Your task to perform on an android device: Search for usb-c to usb-a on bestbuy, select the first entry, add it to the cart, then select checkout. Image 0: 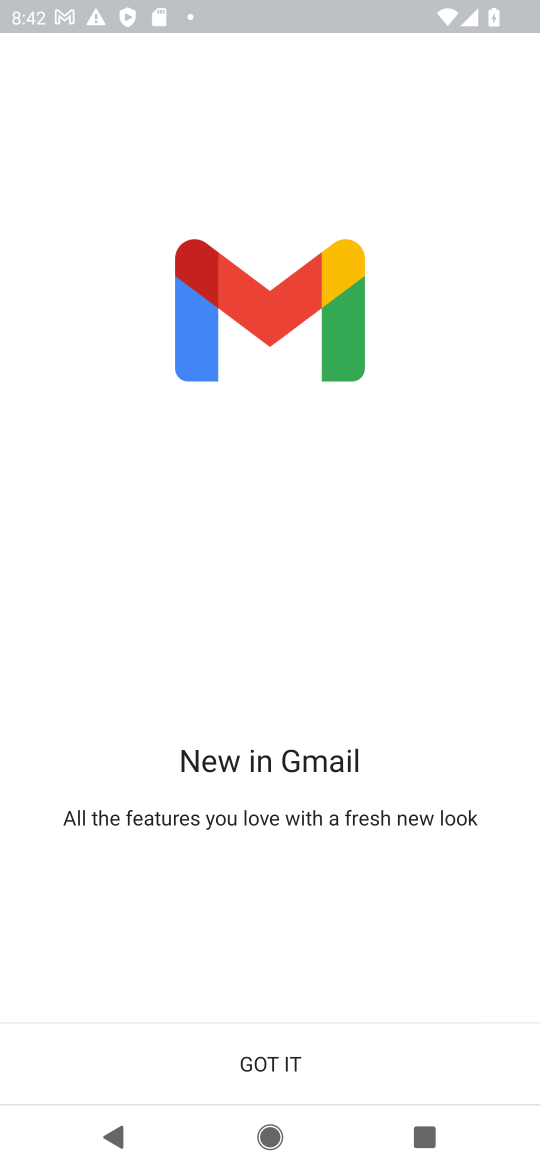
Step 0: press home button
Your task to perform on an android device: Search for usb-c to usb-a on bestbuy, select the first entry, add it to the cart, then select checkout. Image 1: 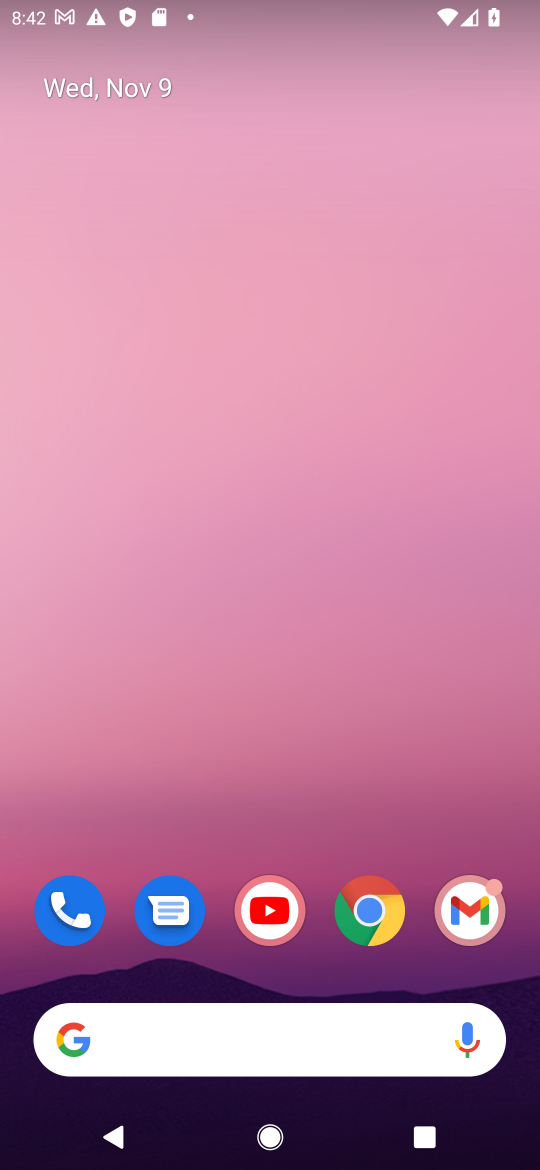
Step 1: click (374, 905)
Your task to perform on an android device: Search for usb-c to usb-a on bestbuy, select the first entry, add it to the cart, then select checkout. Image 2: 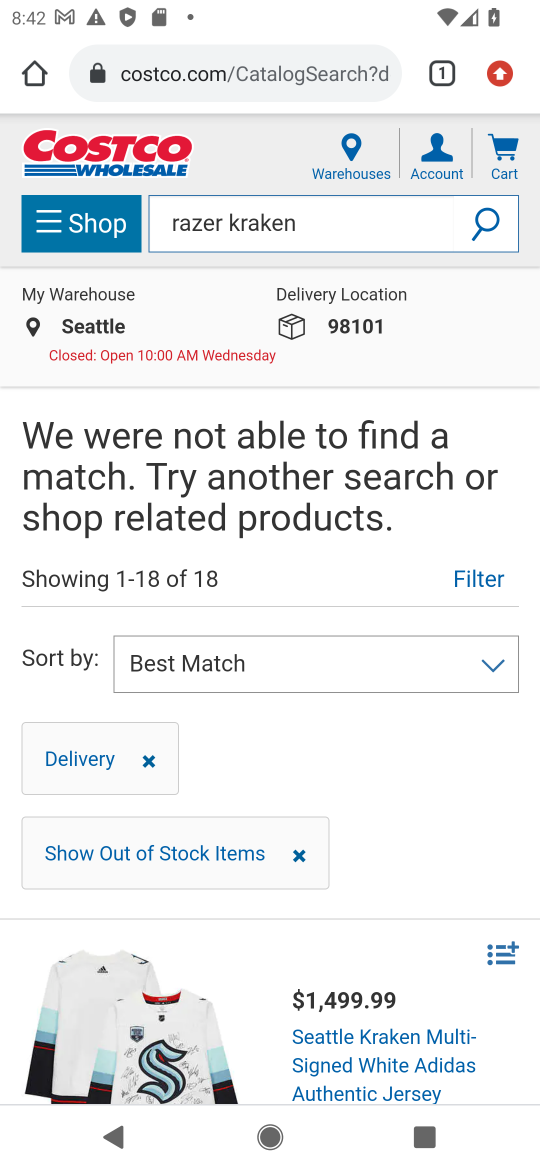
Step 2: click (201, 80)
Your task to perform on an android device: Search for usb-c to usb-a on bestbuy, select the first entry, add it to the cart, then select checkout. Image 3: 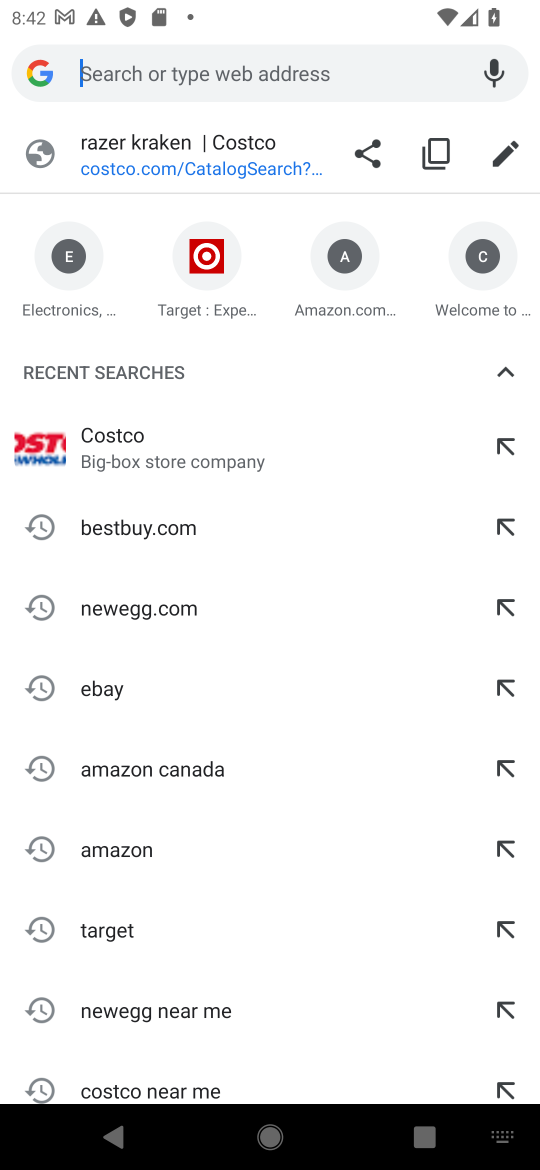
Step 3: click (121, 528)
Your task to perform on an android device: Search for usb-c to usb-a on bestbuy, select the first entry, add it to the cart, then select checkout. Image 4: 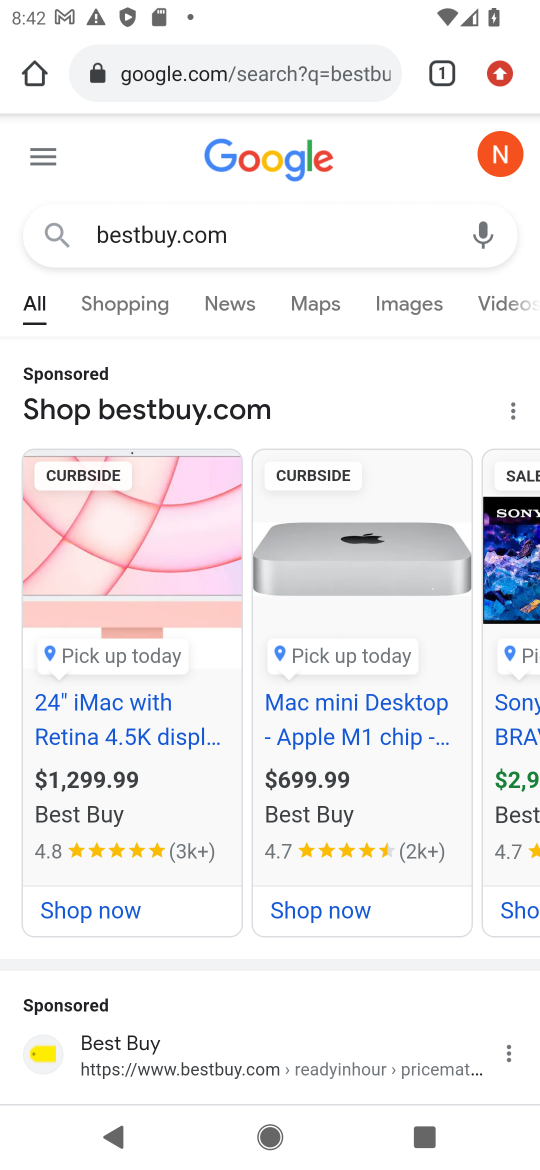
Step 4: drag from (235, 677) to (206, 278)
Your task to perform on an android device: Search for usb-c to usb-a on bestbuy, select the first entry, add it to the cart, then select checkout. Image 5: 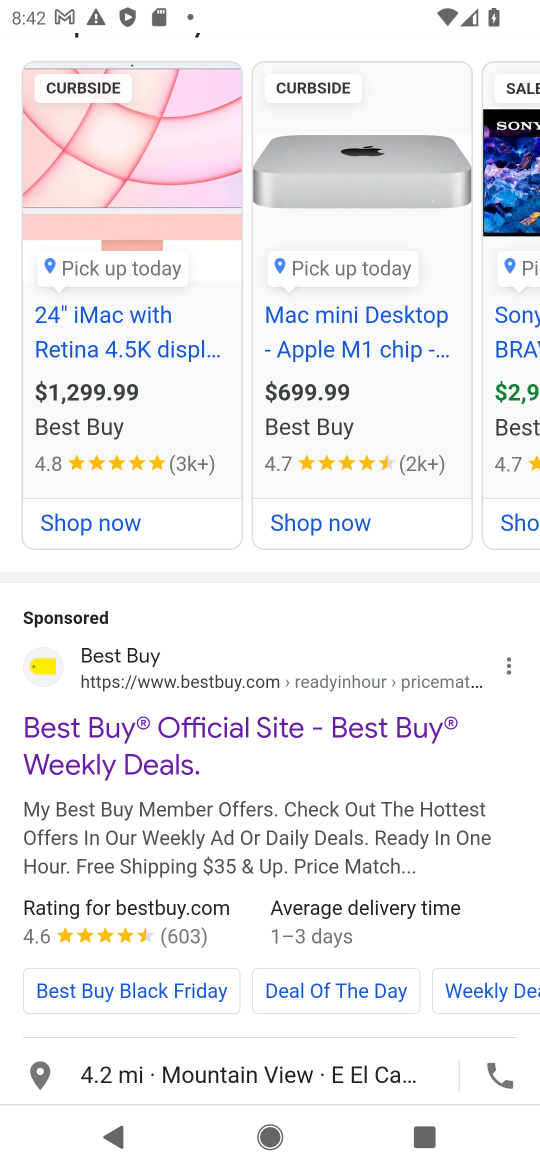
Step 5: drag from (141, 741) to (127, 299)
Your task to perform on an android device: Search for usb-c to usb-a on bestbuy, select the first entry, add it to the cart, then select checkout. Image 6: 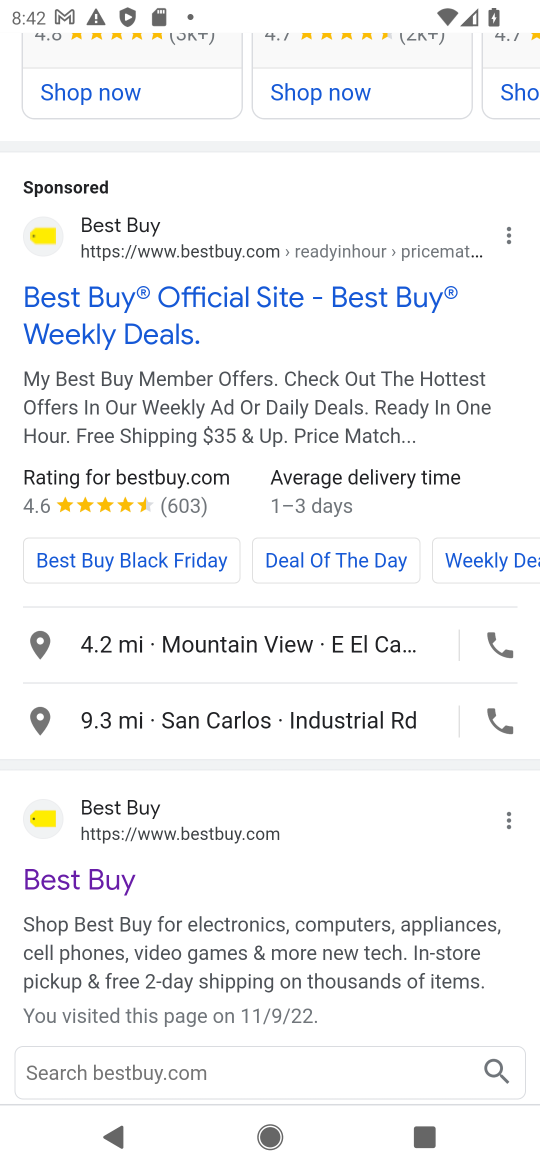
Step 6: drag from (171, 886) to (172, 564)
Your task to perform on an android device: Search for usb-c to usb-a on bestbuy, select the first entry, add it to the cart, then select checkout. Image 7: 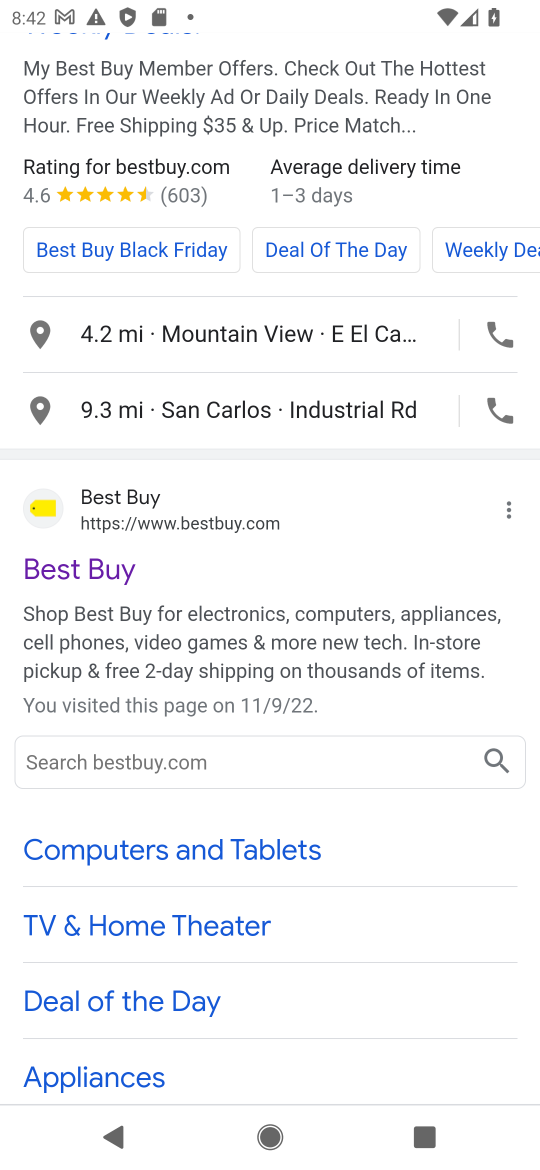
Step 7: click (121, 517)
Your task to perform on an android device: Search for usb-c to usb-a on bestbuy, select the first entry, add it to the cart, then select checkout. Image 8: 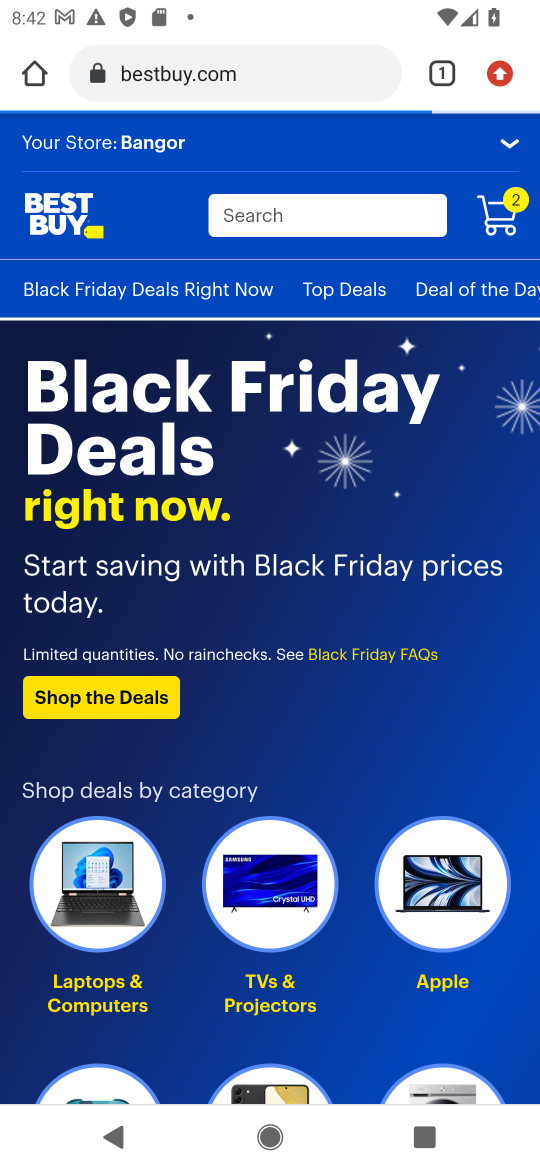
Step 8: click (249, 211)
Your task to perform on an android device: Search for usb-c to usb-a on bestbuy, select the first entry, add it to the cart, then select checkout. Image 9: 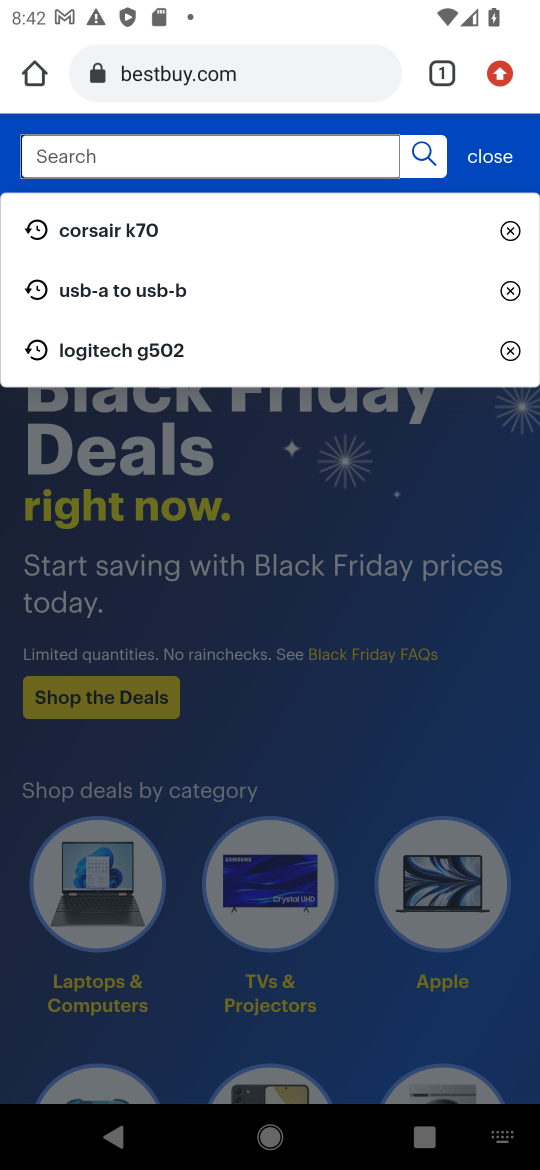
Step 9: type "usb-c to usb-a"
Your task to perform on an android device: Search for usb-c to usb-a on bestbuy, select the first entry, add it to the cart, then select checkout. Image 10: 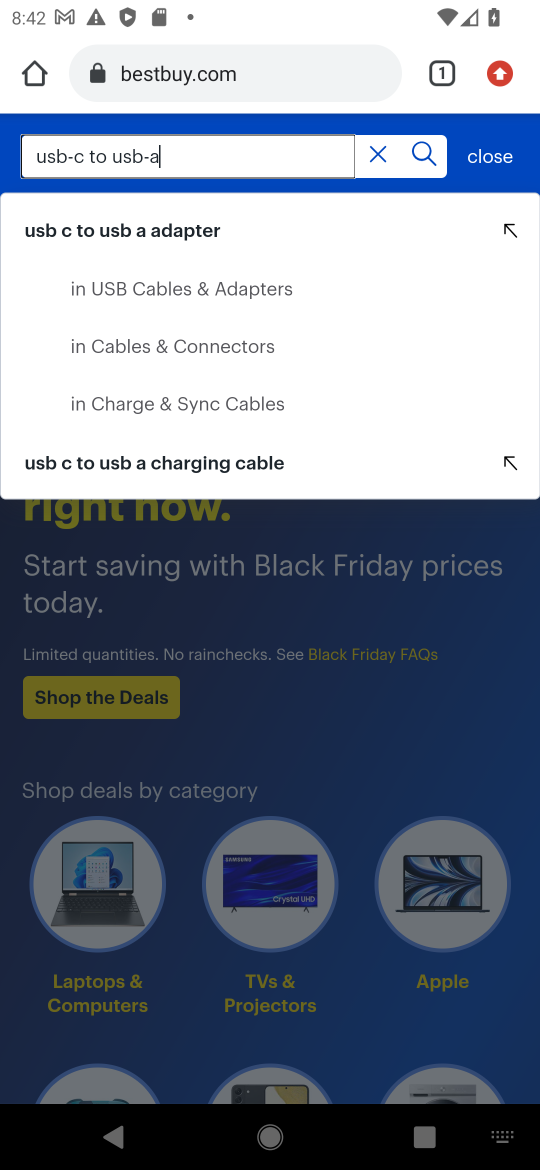
Step 10: click (416, 152)
Your task to perform on an android device: Search for usb-c to usb-a on bestbuy, select the first entry, add it to the cart, then select checkout. Image 11: 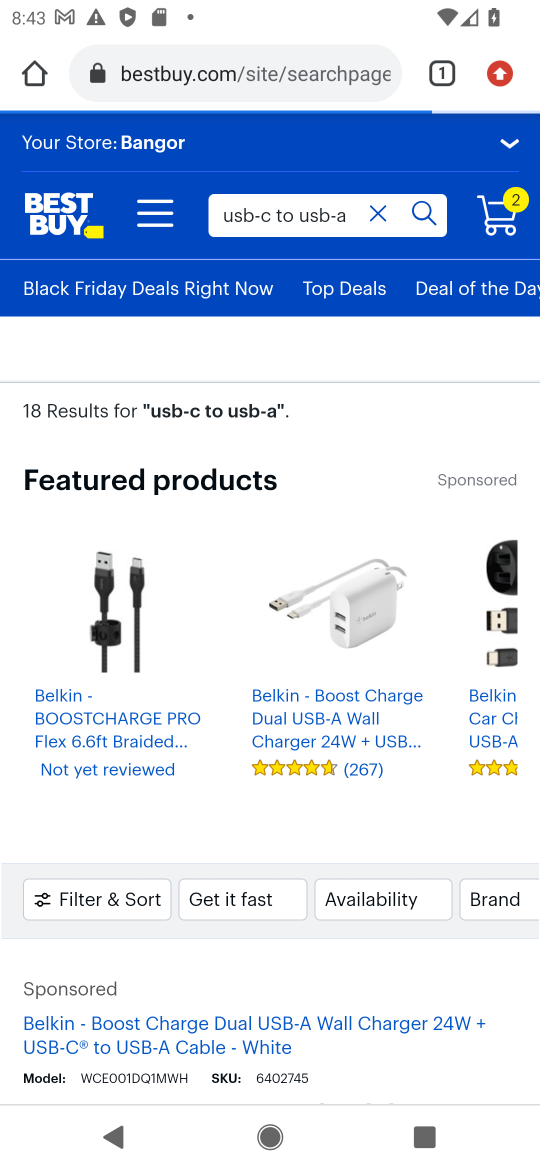
Step 11: drag from (287, 760) to (305, 463)
Your task to perform on an android device: Search for usb-c to usb-a on bestbuy, select the first entry, add it to the cart, then select checkout. Image 12: 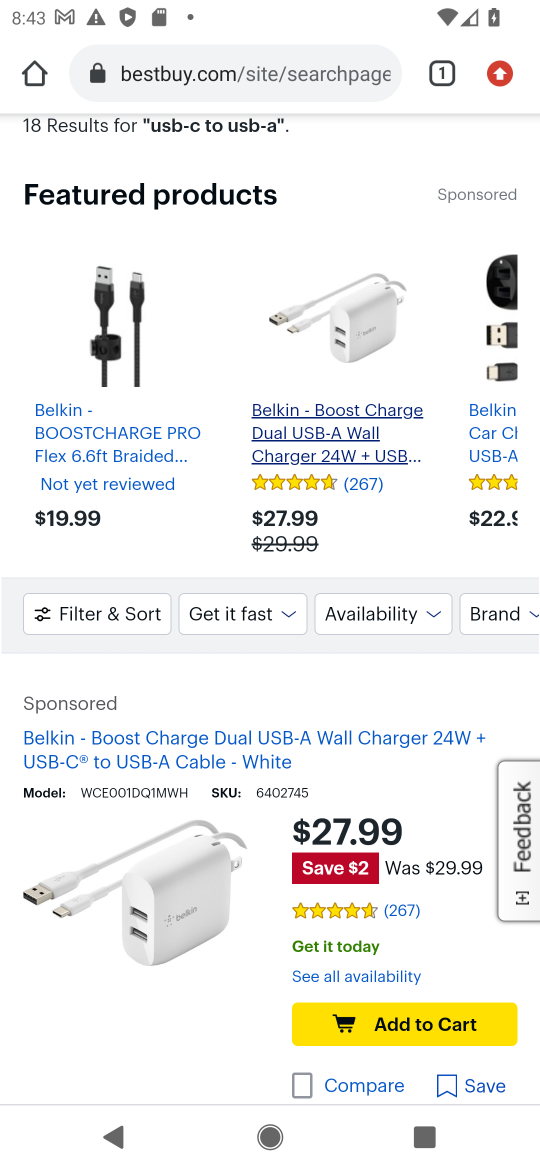
Step 12: drag from (238, 957) to (234, 614)
Your task to perform on an android device: Search for usb-c to usb-a on bestbuy, select the first entry, add it to the cart, then select checkout. Image 13: 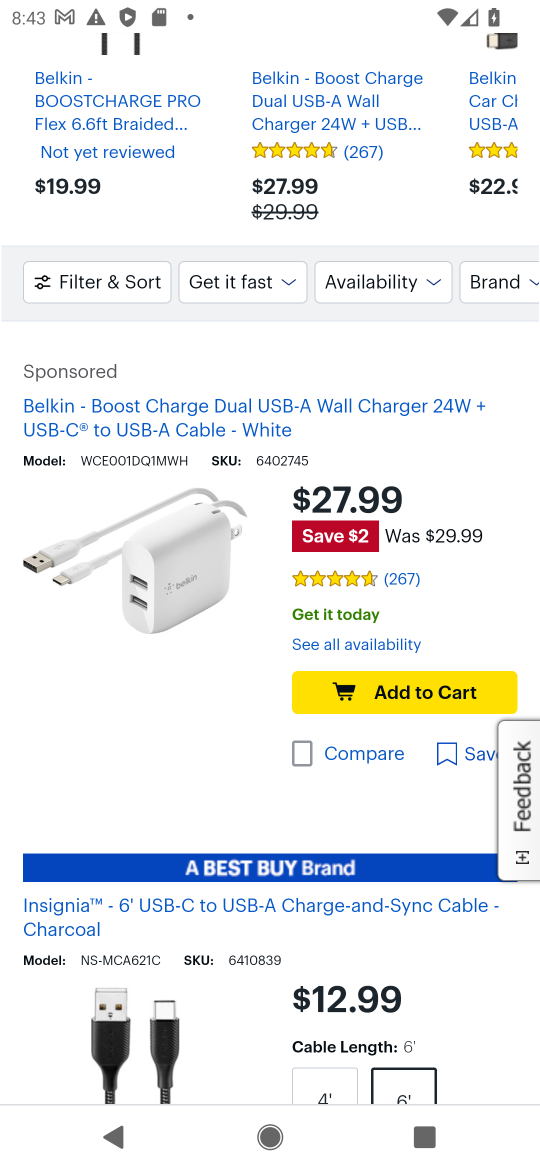
Step 13: drag from (217, 500) to (185, 677)
Your task to perform on an android device: Search for usb-c to usb-a on bestbuy, select the first entry, add it to the cart, then select checkout. Image 14: 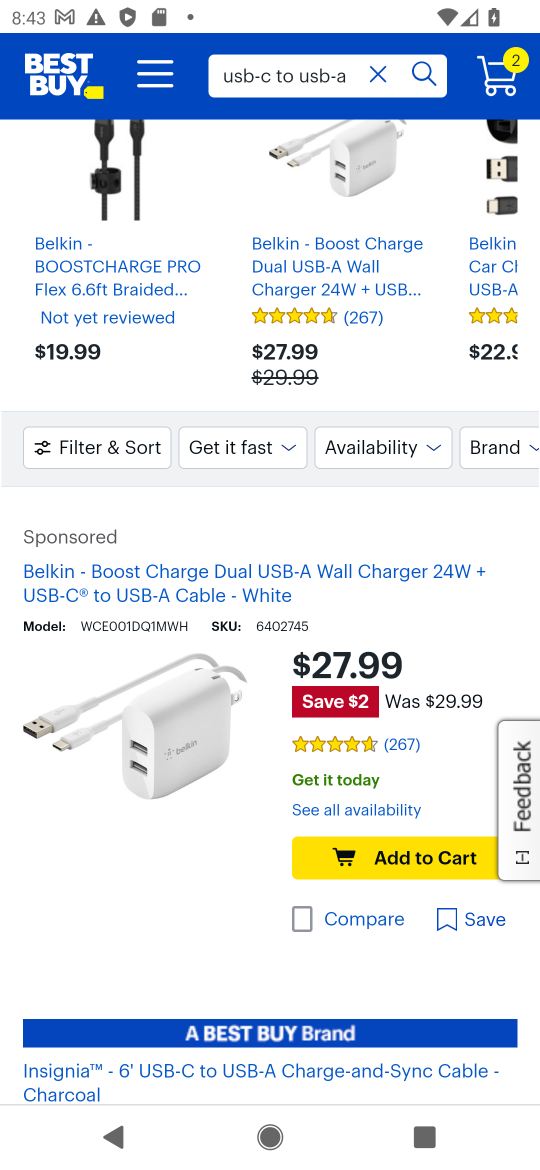
Step 14: click (392, 858)
Your task to perform on an android device: Search for usb-c to usb-a on bestbuy, select the first entry, add it to the cart, then select checkout. Image 15: 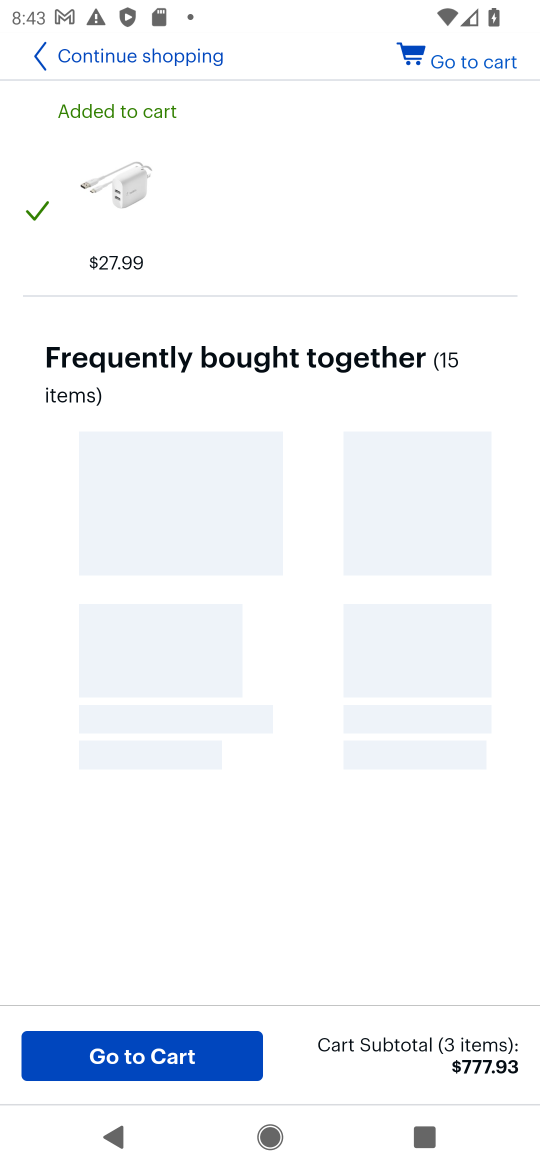
Step 15: click (463, 65)
Your task to perform on an android device: Search for usb-c to usb-a on bestbuy, select the first entry, add it to the cart, then select checkout. Image 16: 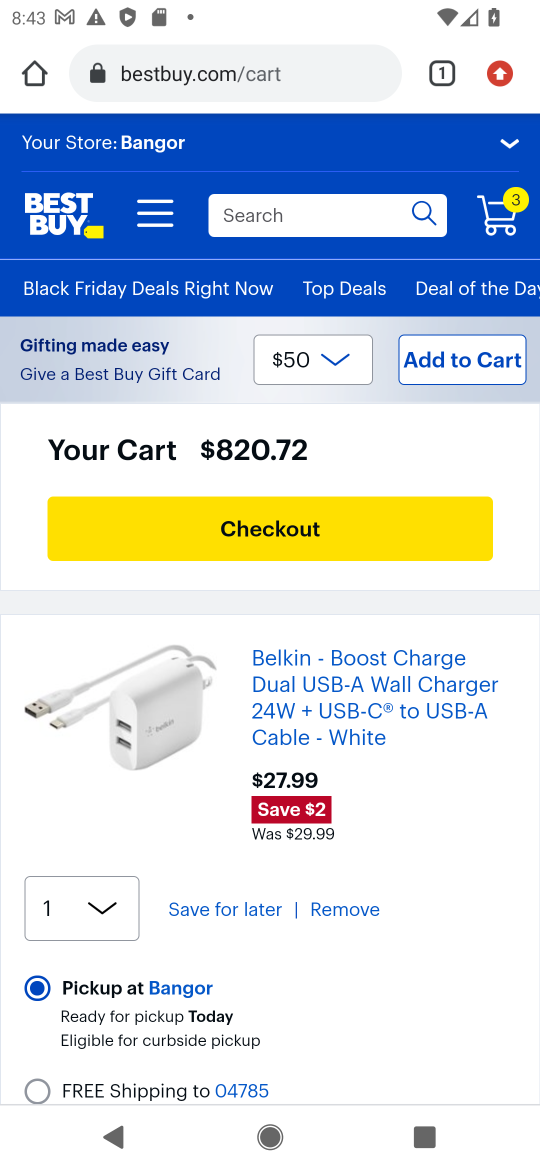
Step 16: click (237, 531)
Your task to perform on an android device: Search for usb-c to usb-a on bestbuy, select the first entry, add it to the cart, then select checkout. Image 17: 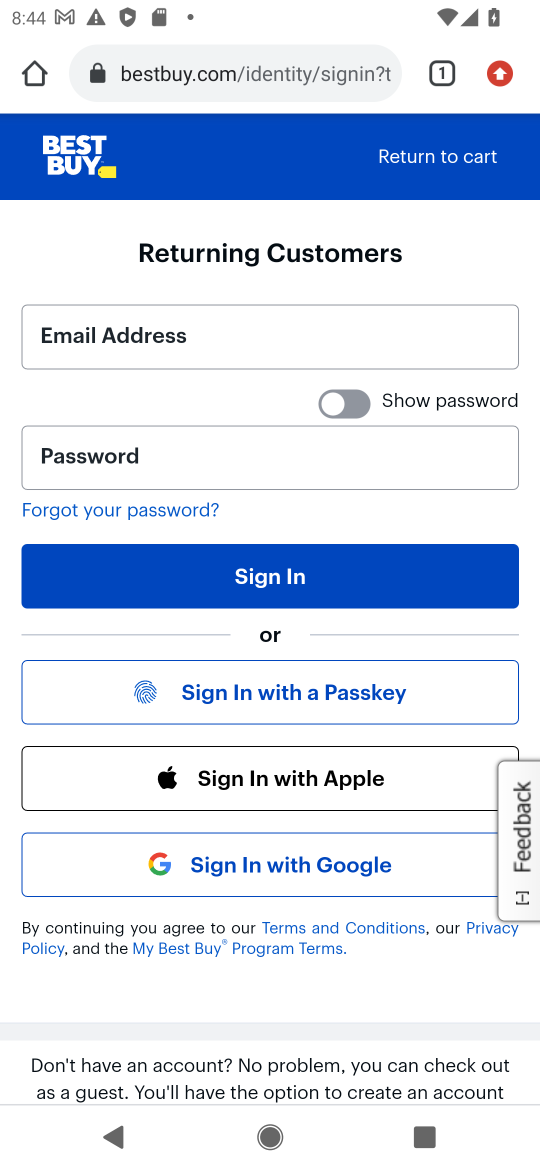
Step 17: task complete